Your task to perform on an android device: move an email to a new category in the gmail app Image 0: 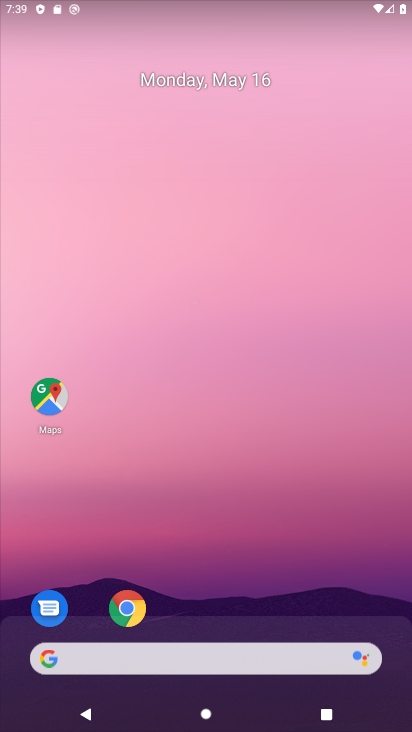
Step 0: drag from (16, 639) to (227, 127)
Your task to perform on an android device: move an email to a new category in the gmail app Image 1: 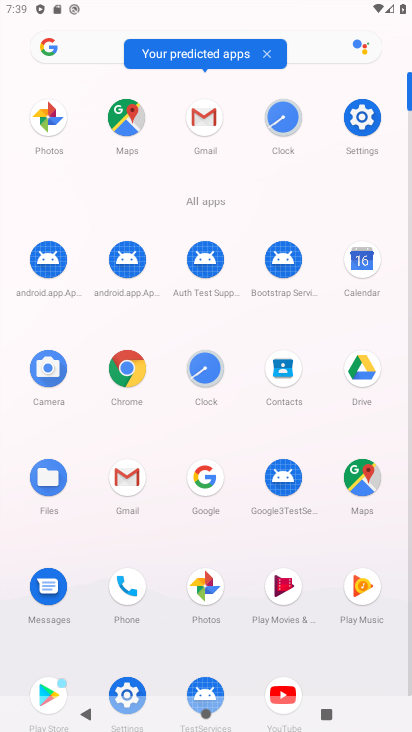
Step 1: click (131, 479)
Your task to perform on an android device: move an email to a new category in the gmail app Image 2: 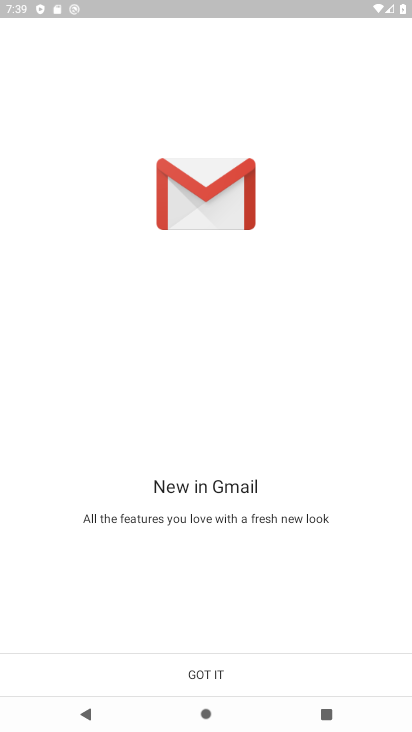
Step 2: click (205, 664)
Your task to perform on an android device: move an email to a new category in the gmail app Image 3: 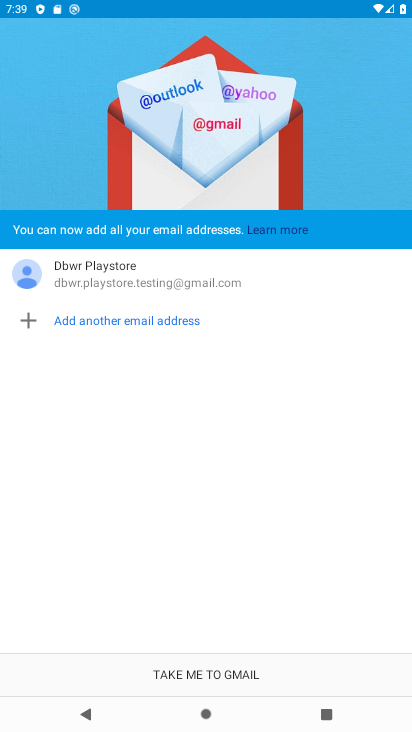
Step 3: click (202, 665)
Your task to perform on an android device: move an email to a new category in the gmail app Image 4: 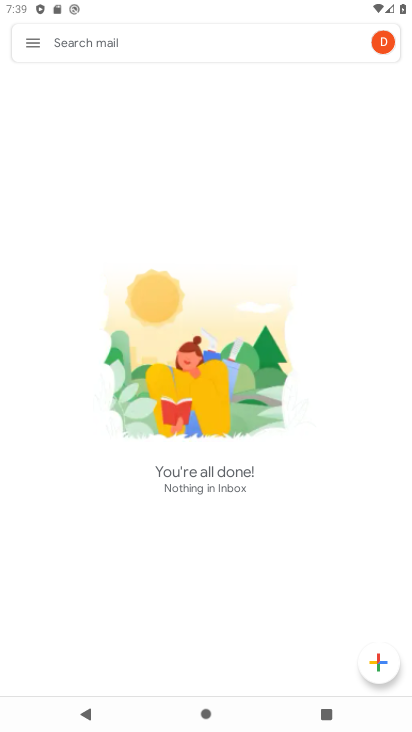
Step 4: task complete